Your task to perform on an android device: add a contact in the contacts app Image 0: 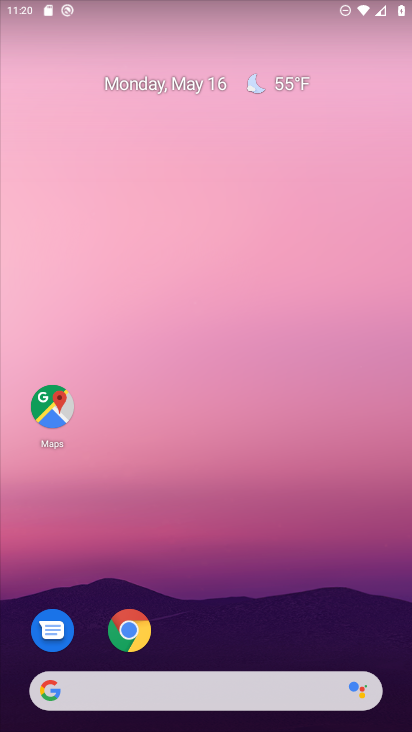
Step 0: drag from (199, 587) to (194, 194)
Your task to perform on an android device: add a contact in the contacts app Image 1: 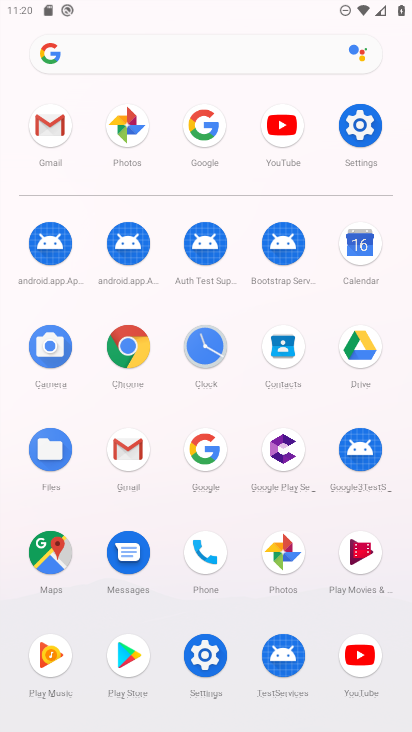
Step 1: click (264, 347)
Your task to perform on an android device: add a contact in the contacts app Image 2: 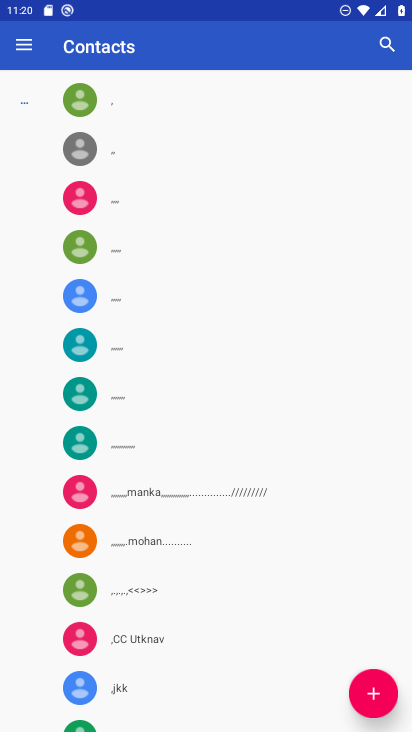
Step 2: click (361, 684)
Your task to perform on an android device: add a contact in the contacts app Image 3: 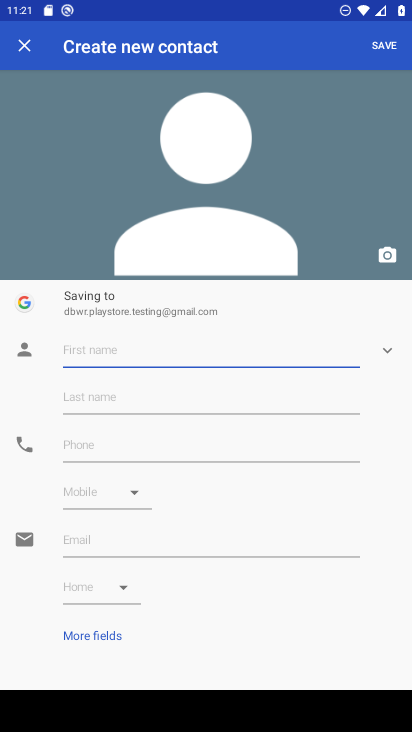
Step 3: type "gnfghfg"
Your task to perform on an android device: add a contact in the contacts app Image 4: 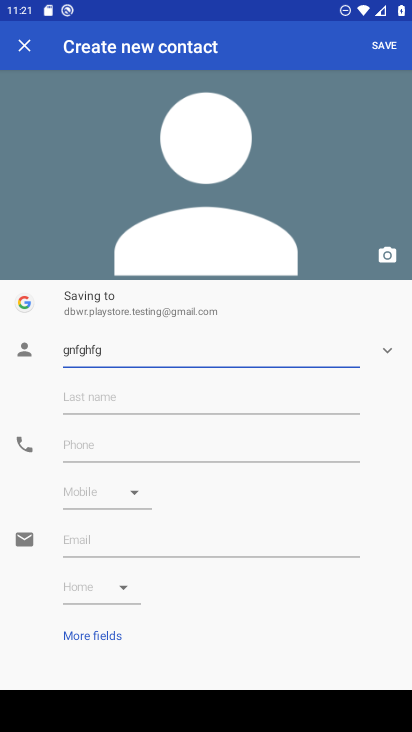
Step 4: click (104, 451)
Your task to perform on an android device: add a contact in the contacts app Image 5: 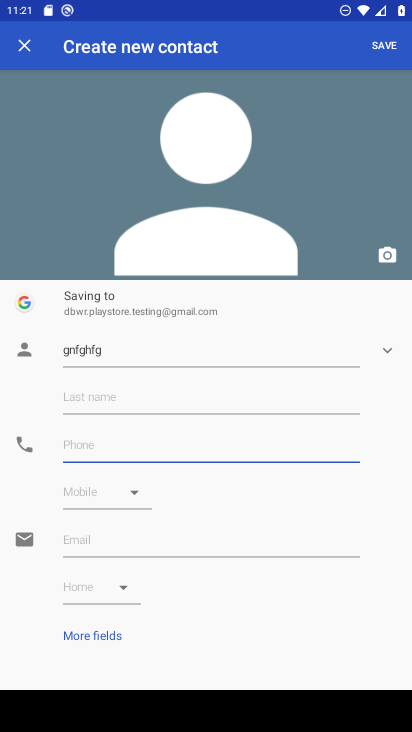
Step 5: type "67979768566"
Your task to perform on an android device: add a contact in the contacts app Image 6: 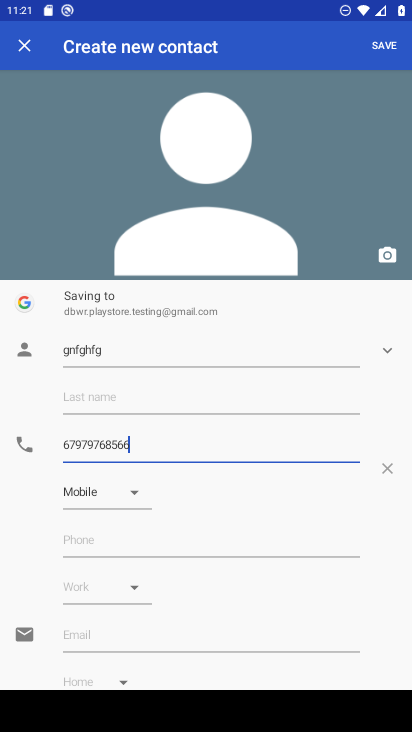
Step 6: click (388, 49)
Your task to perform on an android device: add a contact in the contacts app Image 7: 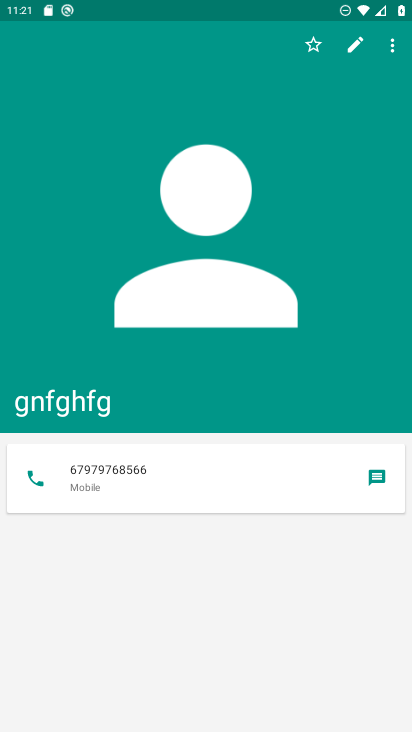
Step 7: task complete